Your task to perform on an android device: What's on my calendar today? Image 0: 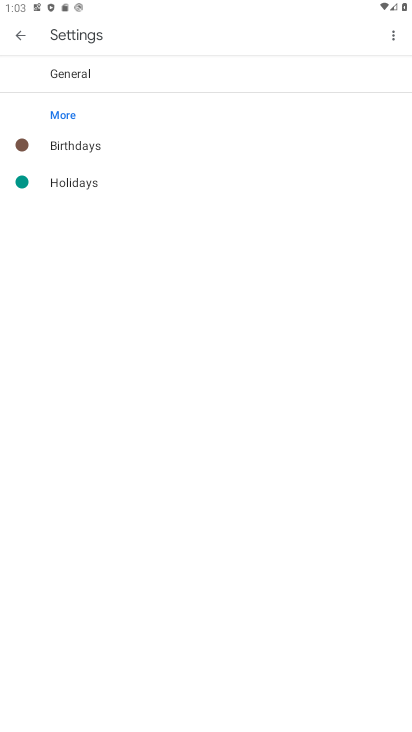
Step 0: press home button
Your task to perform on an android device: What's on my calendar today? Image 1: 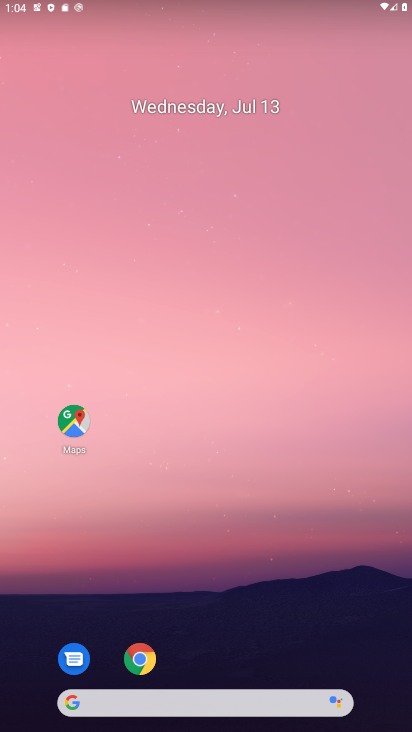
Step 1: drag from (241, 624) to (248, 132)
Your task to perform on an android device: What's on my calendar today? Image 2: 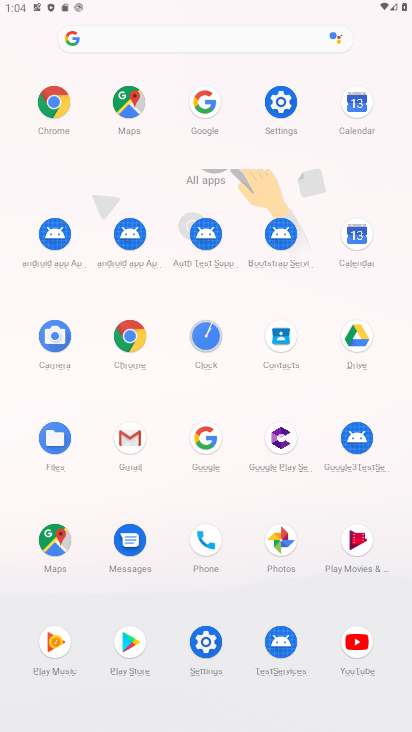
Step 2: click (351, 240)
Your task to perform on an android device: What's on my calendar today? Image 3: 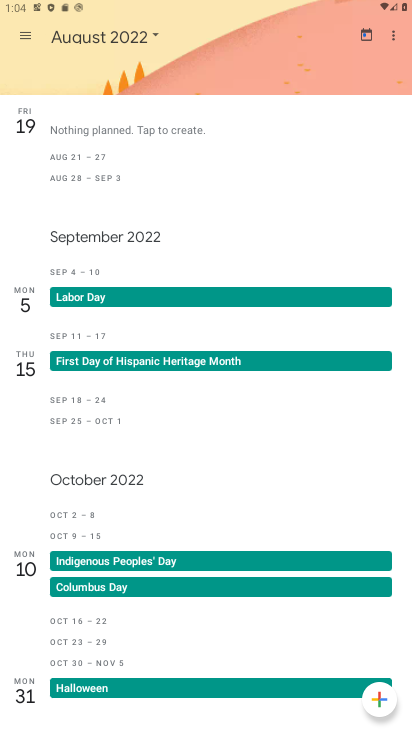
Step 3: click (158, 37)
Your task to perform on an android device: What's on my calendar today? Image 4: 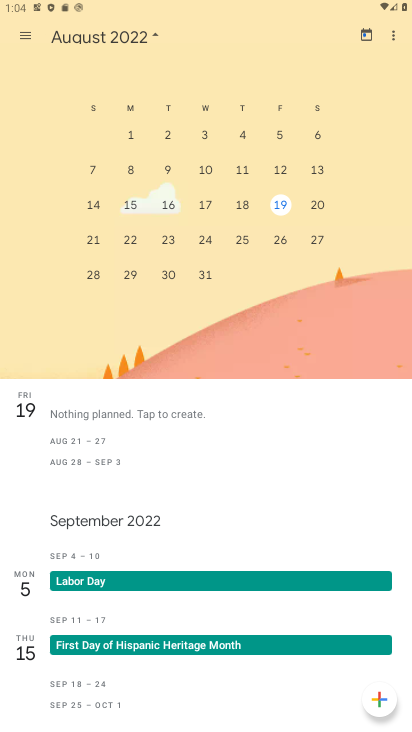
Step 4: drag from (60, 320) to (410, 289)
Your task to perform on an android device: What's on my calendar today? Image 5: 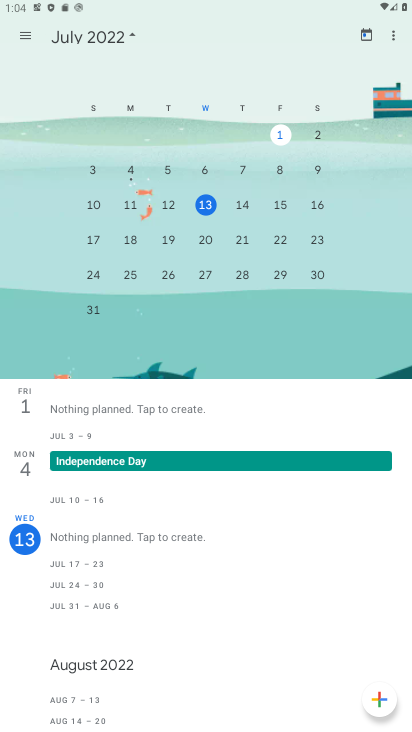
Step 5: click (207, 205)
Your task to perform on an android device: What's on my calendar today? Image 6: 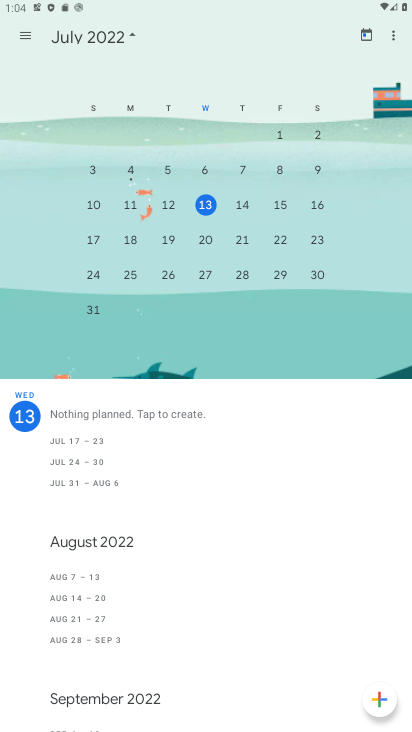
Step 6: task complete